Your task to perform on an android device: turn off smart reply in the gmail app Image 0: 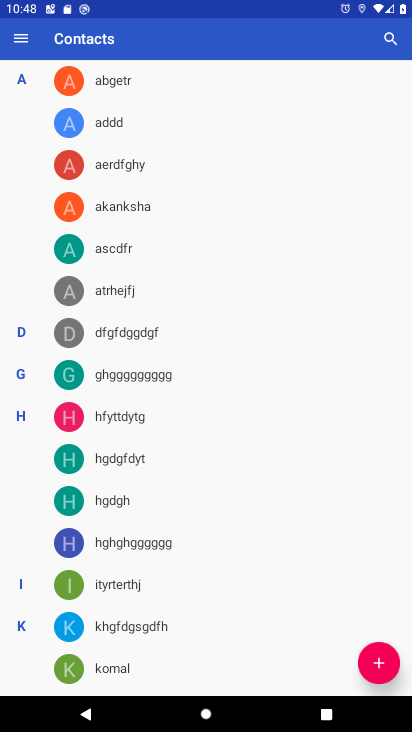
Step 0: press home button
Your task to perform on an android device: turn off smart reply in the gmail app Image 1: 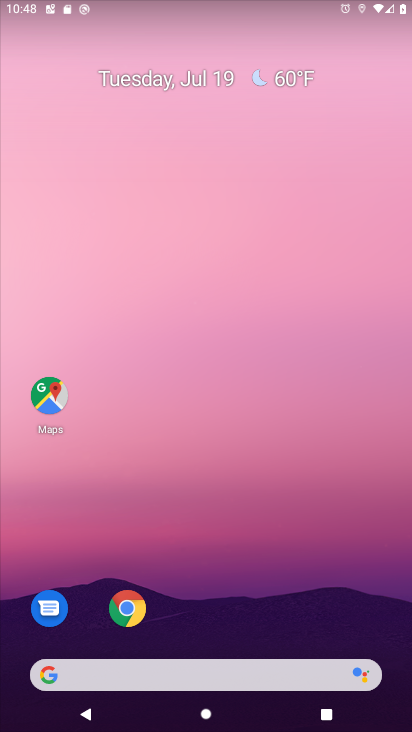
Step 1: drag from (212, 632) to (224, 23)
Your task to perform on an android device: turn off smart reply in the gmail app Image 2: 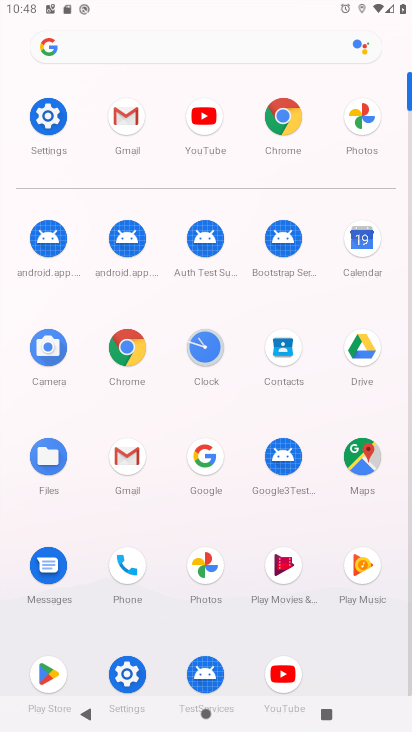
Step 2: click (131, 437)
Your task to perform on an android device: turn off smart reply in the gmail app Image 3: 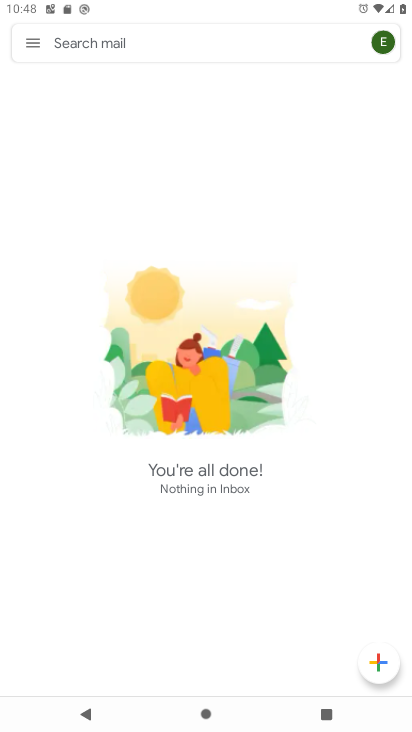
Step 3: click (33, 39)
Your task to perform on an android device: turn off smart reply in the gmail app Image 4: 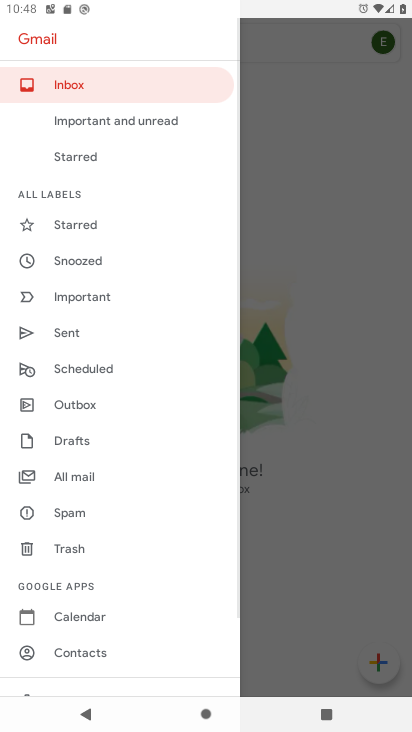
Step 4: drag from (70, 592) to (71, 165)
Your task to perform on an android device: turn off smart reply in the gmail app Image 5: 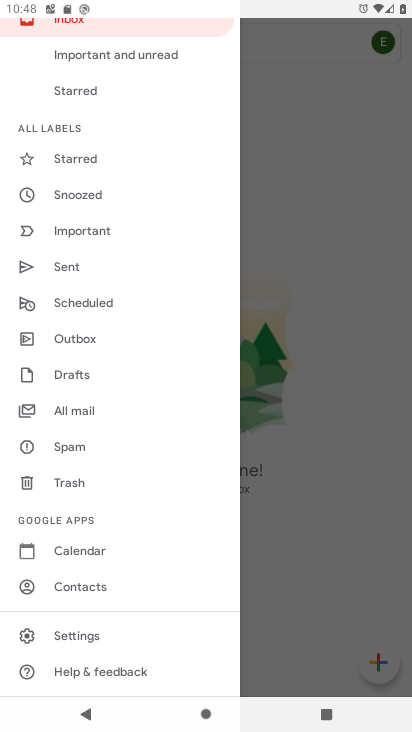
Step 5: click (58, 617)
Your task to perform on an android device: turn off smart reply in the gmail app Image 6: 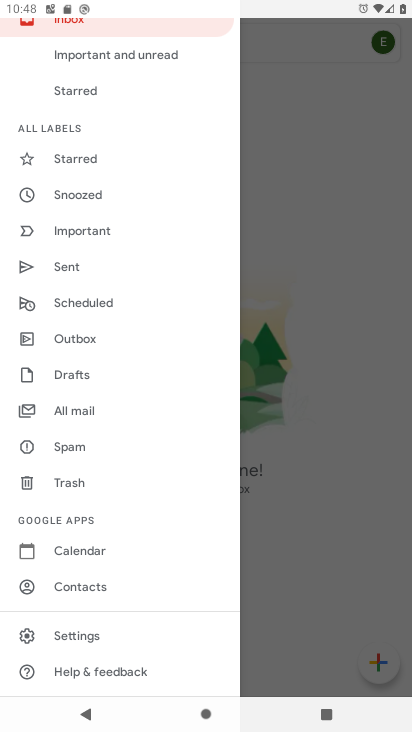
Step 6: click (58, 637)
Your task to perform on an android device: turn off smart reply in the gmail app Image 7: 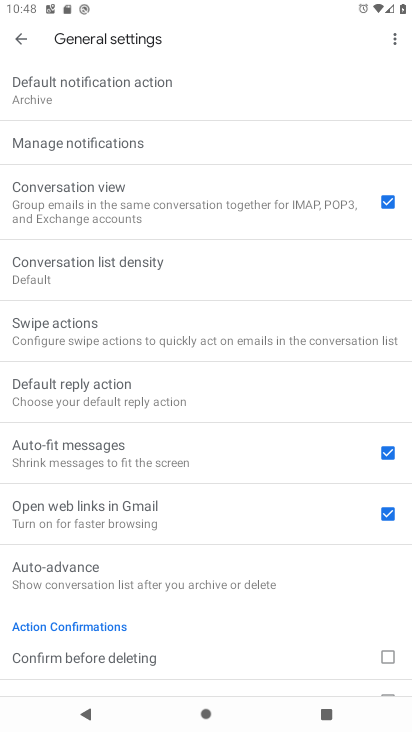
Step 7: click (24, 38)
Your task to perform on an android device: turn off smart reply in the gmail app Image 8: 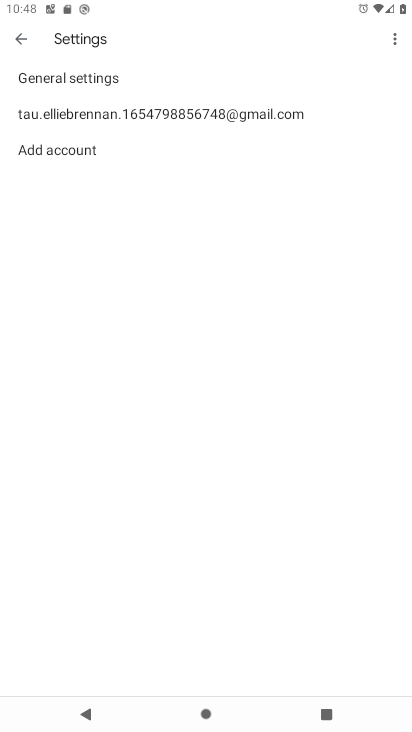
Step 8: click (54, 111)
Your task to perform on an android device: turn off smart reply in the gmail app Image 9: 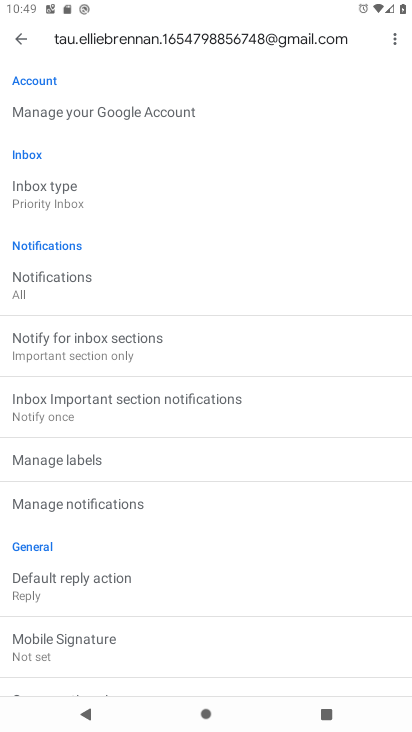
Step 9: drag from (186, 623) to (115, 151)
Your task to perform on an android device: turn off smart reply in the gmail app Image 10: 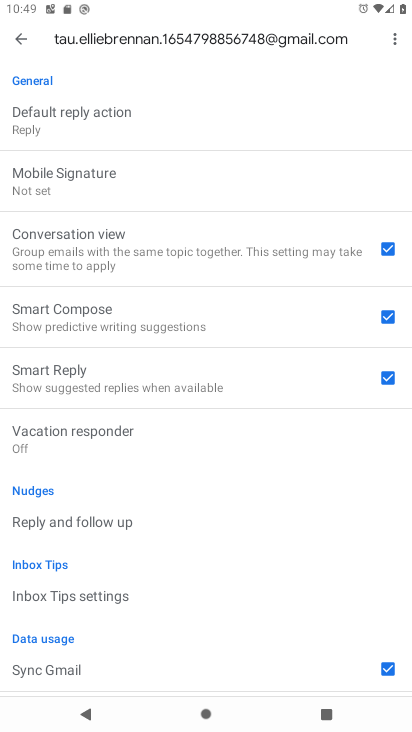
Step 10: click (381, 381)
Your task to perform on an android device: turn off smart reply in the gmail app Image 11: 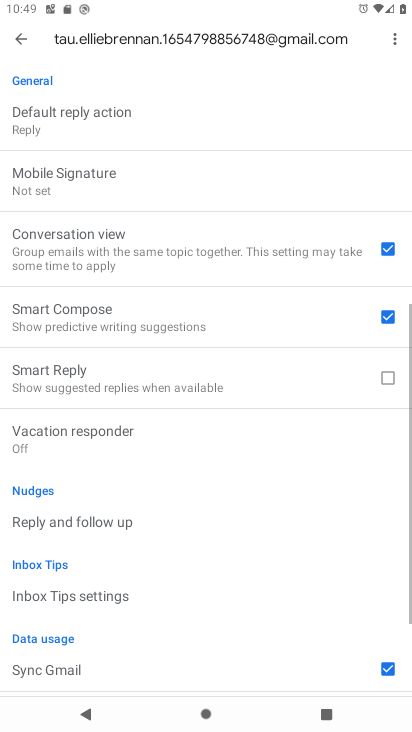
Step 11: task complete